Your task to perform on an android device: Open display settings Image 0: 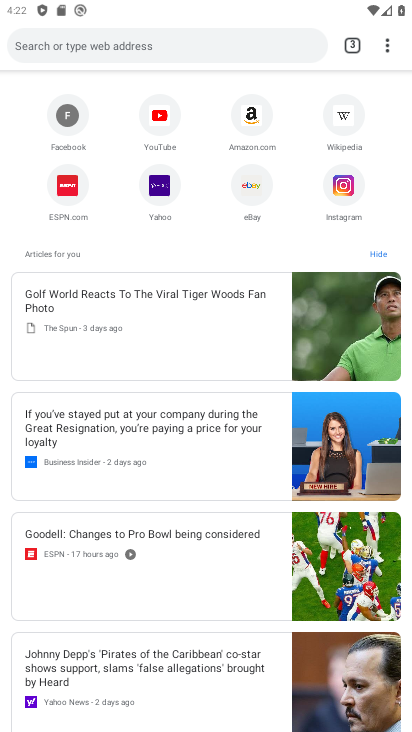
Step 0: press back button
Your task to perform on an android device: Open display settings Image 1: 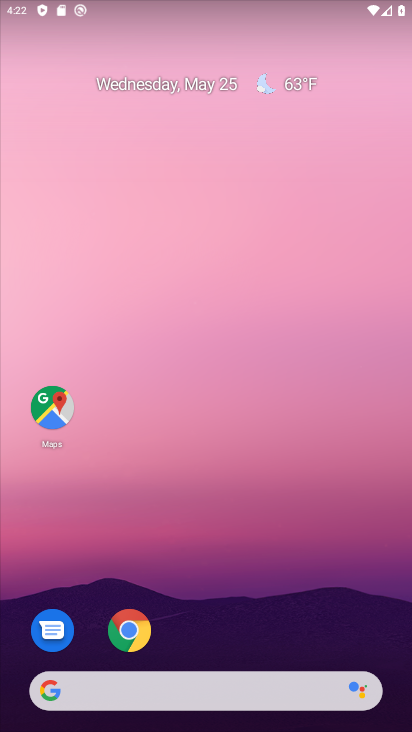
Step 1: drag from (209, 625) to (225, 88)
Your task to perform on an android device: Open display settings Image 2: 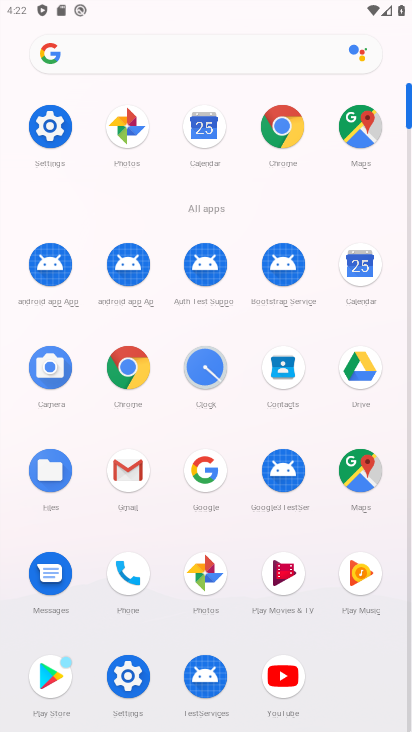
Step 2: click (44, 128)
Your task to perform on an android device: Open display settings Image 3: 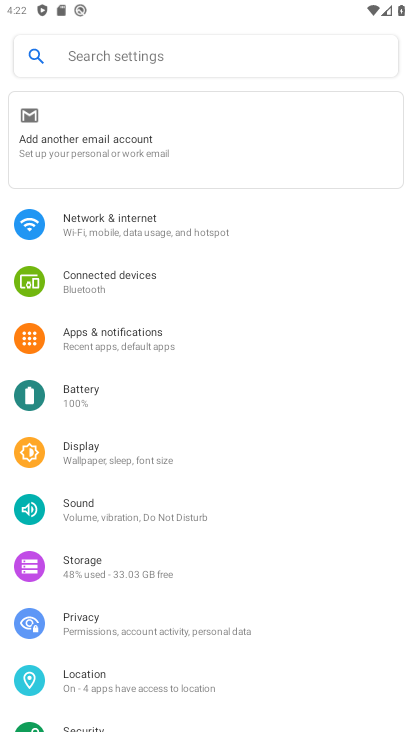
Step 3: click (84, 464)
Your task to perform on an android device: Open display settings Image 4: 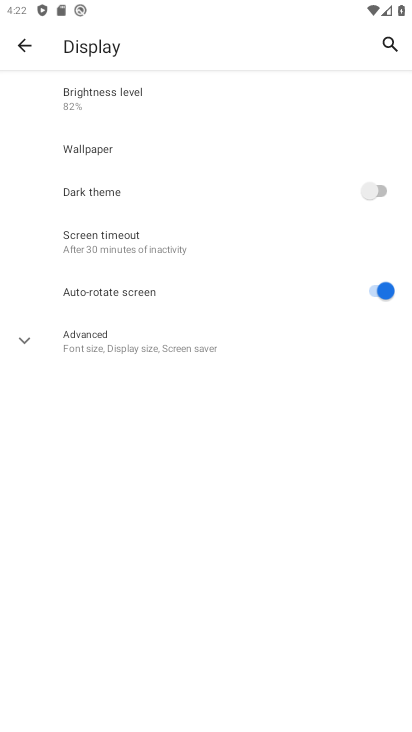
Step 4: task complete